Your task to perform on an android device: remove spam from my inbox in the gmail app Image 0: 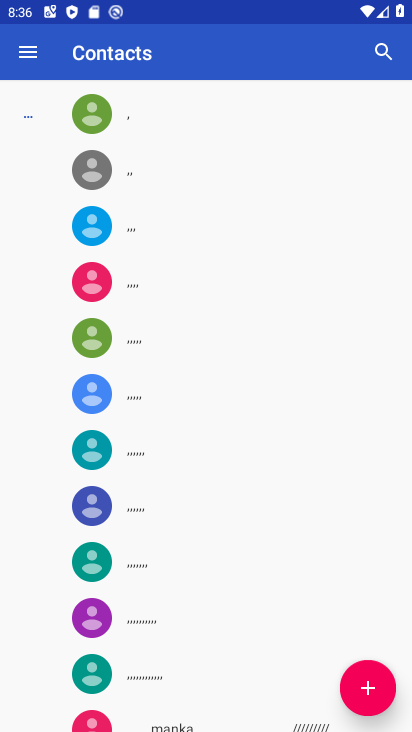
Step 0: press home button
Your task to perform on an android device: remove spam from my inbox in the gmail app Image 1: 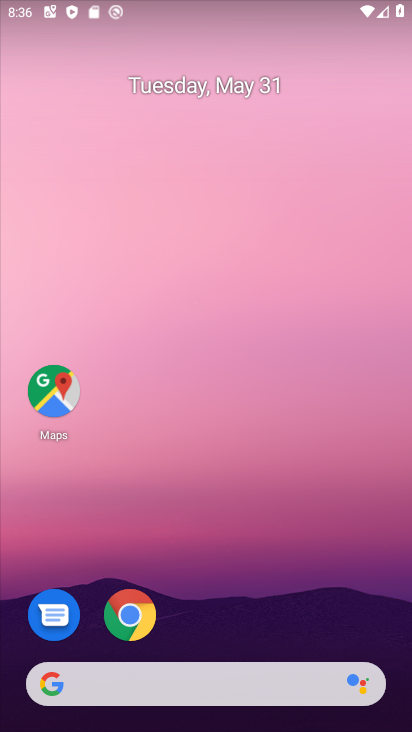
Step 1: drag from (300, 639) to (217, 198)
Your task to perform on an android device: remove spam from my inbox in the gmail app Image 2: 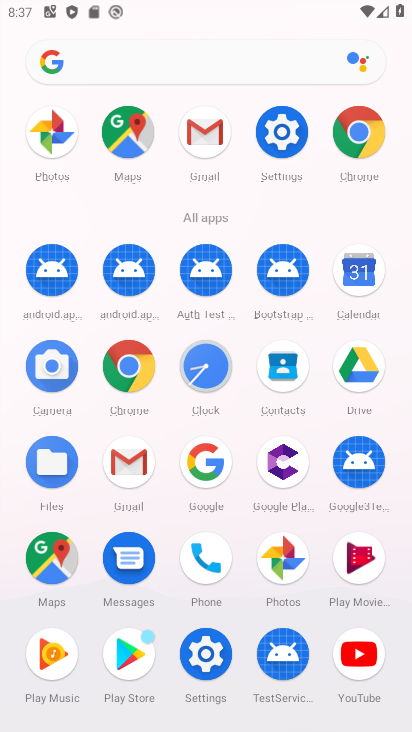
Step 2: click (126, 465)
Your task to perform on an android device: remove spam from my inbox in the gmail app Image 3: 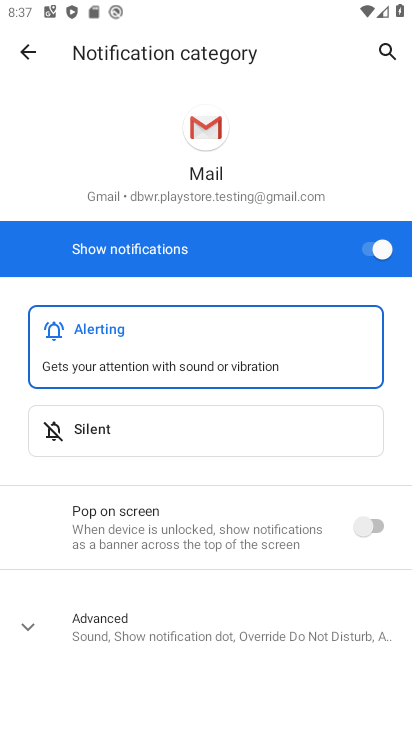
Step 3: press back button
Your task to perform on an android device: remove spam from my inbox in the gmail app Image 4: 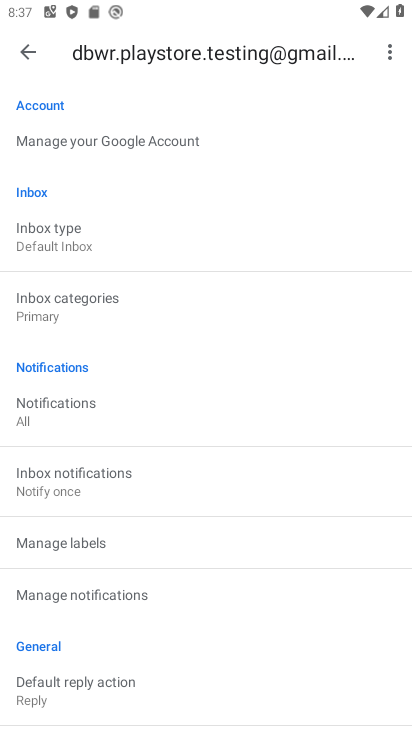
Step 4: press back button
Your task to perform on an android device: remove spam from my inbox in the gmail app Image 5: 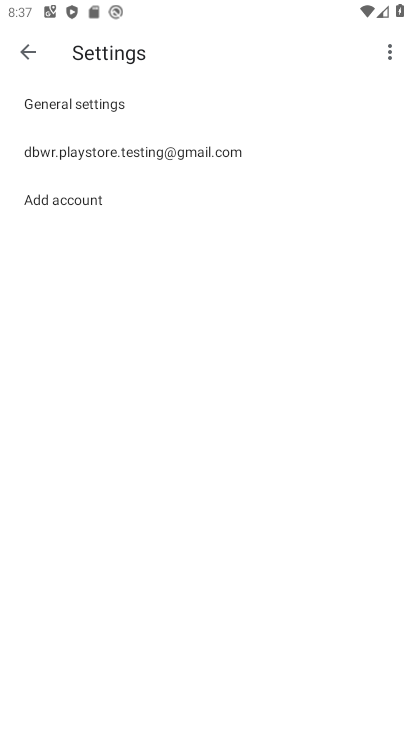
Step 5: press back button
Your task to perform on an android device: remove spam from my inbox in the gmail app Image 6: 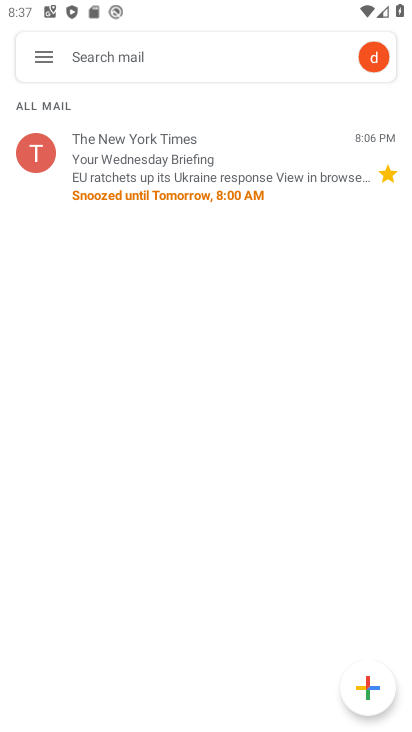
Step 6: click (38, 53)
Your task to perform on an android device: remove spam from my inbox in the gmail app Image 7: 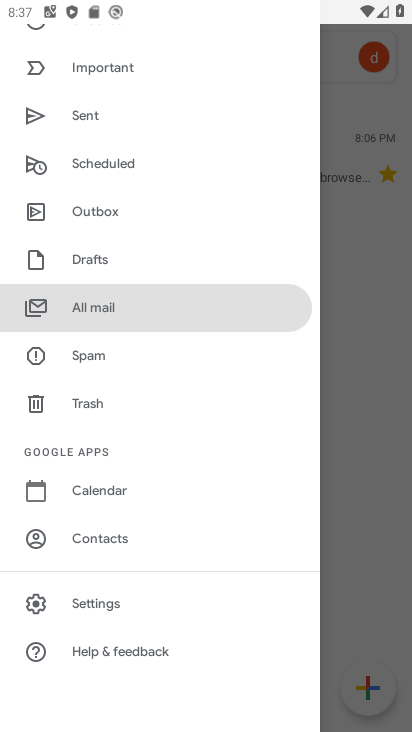
Step 7: click (89, 361)
Your task to perform on an android device: remove spam from my inbox in the gmail app Image 8: 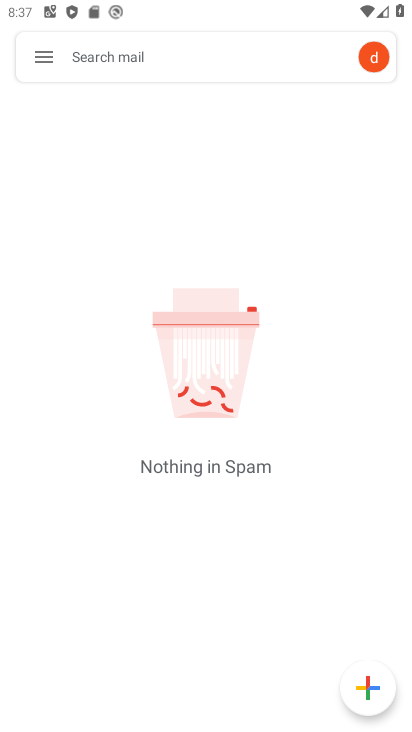
Step 8: task complete